Your task to perform on an android device: Open Google Chrome Image 0: 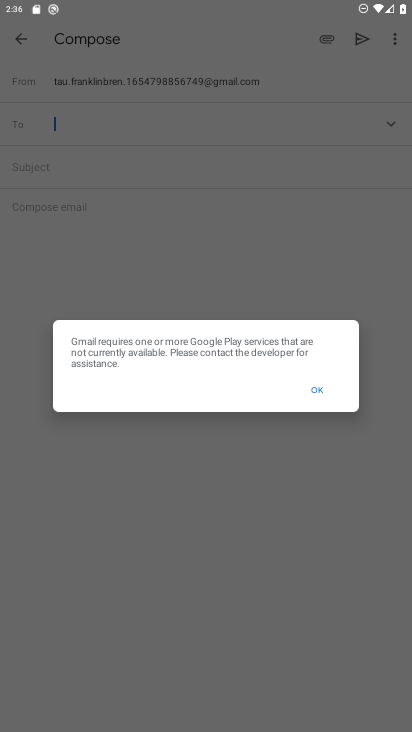
Step 0: press home button
Your task to perform on an android device: Open Google Chrome Image 1: 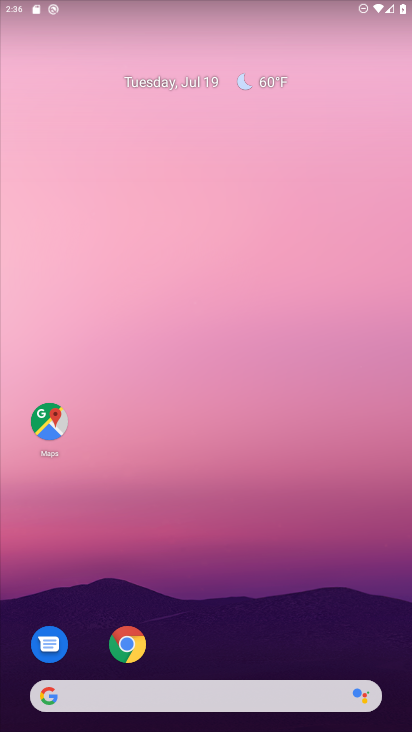
Step 1: click (137, 643)
Your task to perform on an android device: Open Google Chrome Image 2: 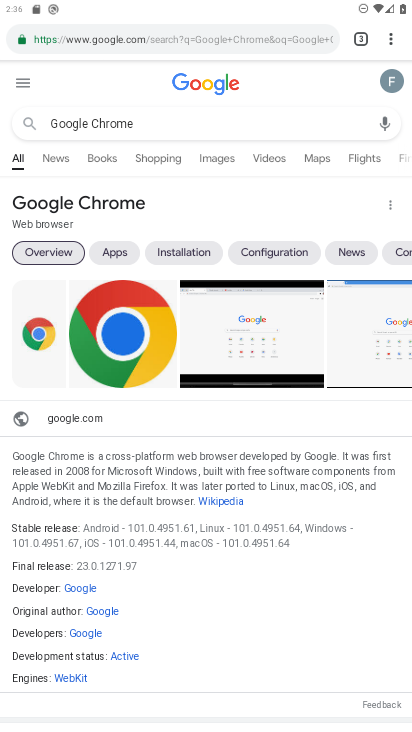
Step 2: task complete